Your task to perform on an android device: Open Maps and search for coffee Image 0: 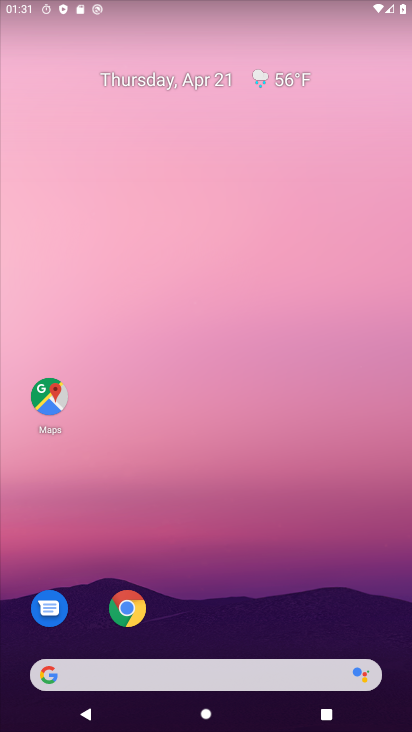
Step 0: drag from (229, 596) to (262, 646)
Your task to perform on an android device: Open Maps and search for coffee Image 1: 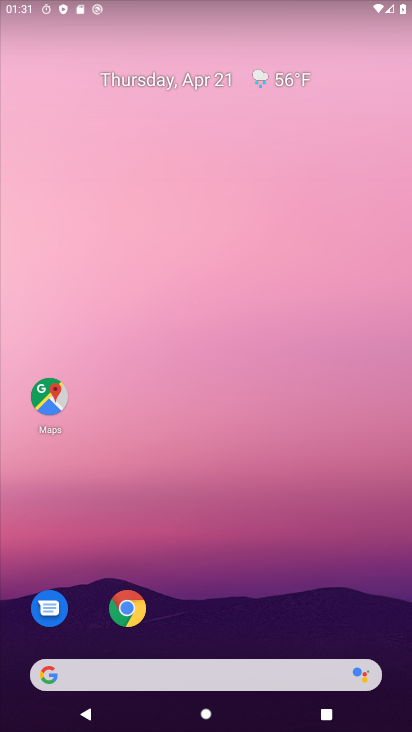
Step 1: click (55, 392)
Your task to perform on an android device: Open Maps and search for coffee Image 2: 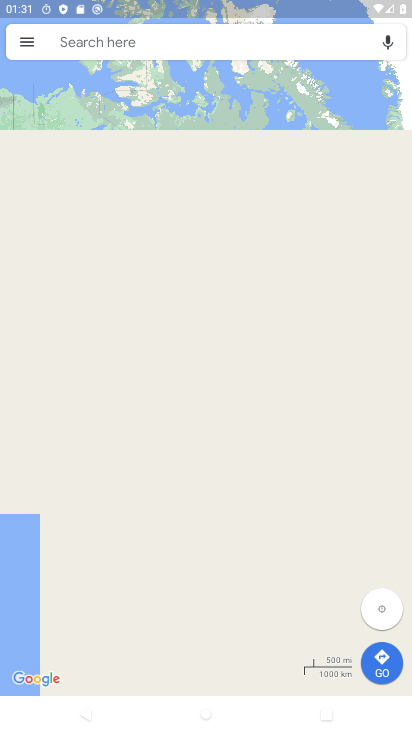
Step 2: click (153, 36)
Your task to perform on an android device: Open Maps and search for coffee Image 3: 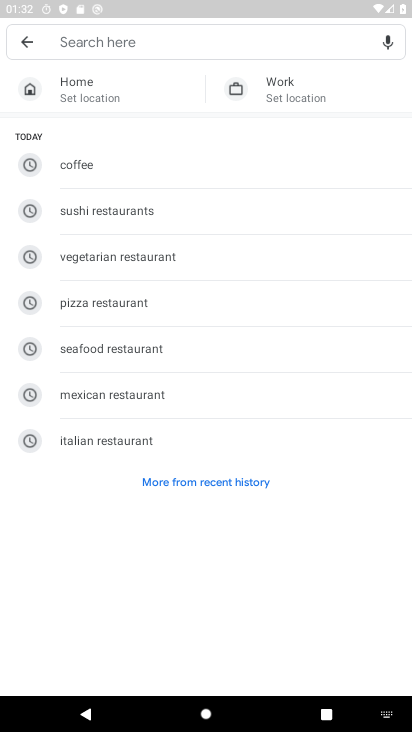
Step 3: click (123, 169)
Your task to perform on an android device: Open Maps and search for coffee Image 4: 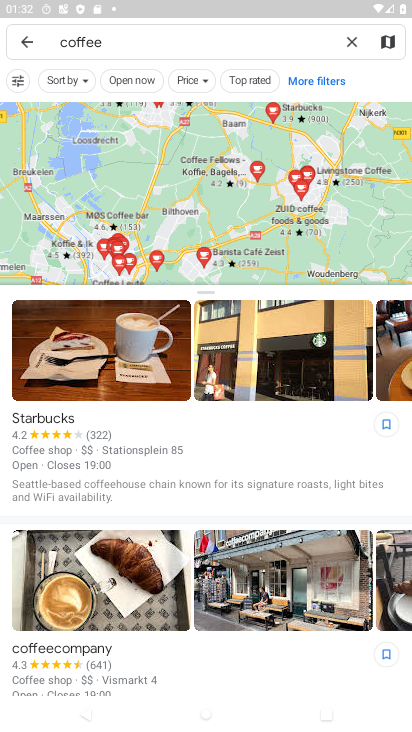
Step 4: task complete